Your task to perform on an android device: Show me popular games on the Play Store Image 0: 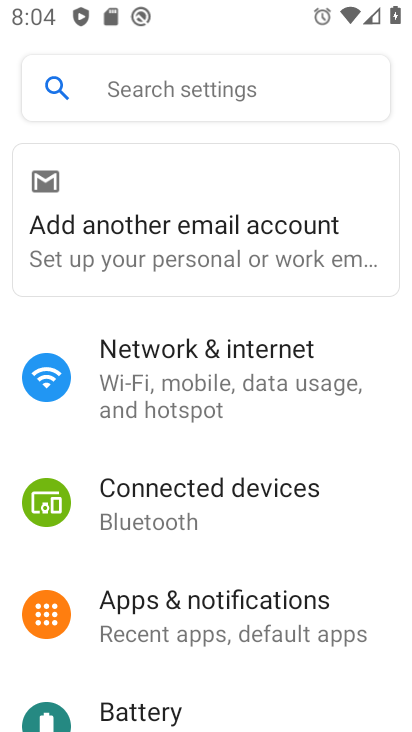
Step 0: press home button
Your task to perform on an android device: Show me popular games on the Play Store Image 1: 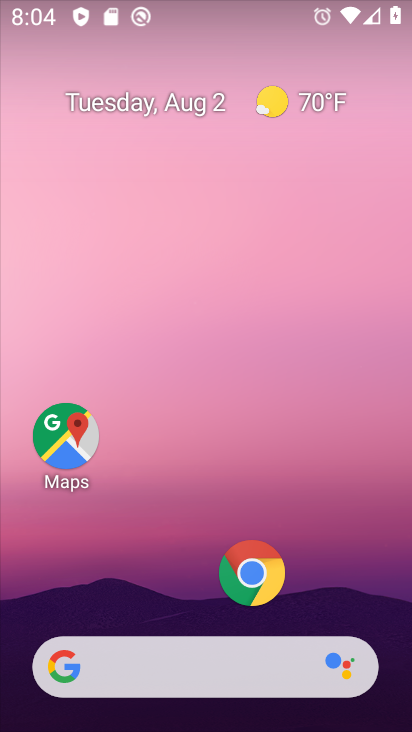
Step 1: drag from (191, 612) to (189, 42)
Your task to perform on an android device: Show me popular games on the Play Store Image 2: 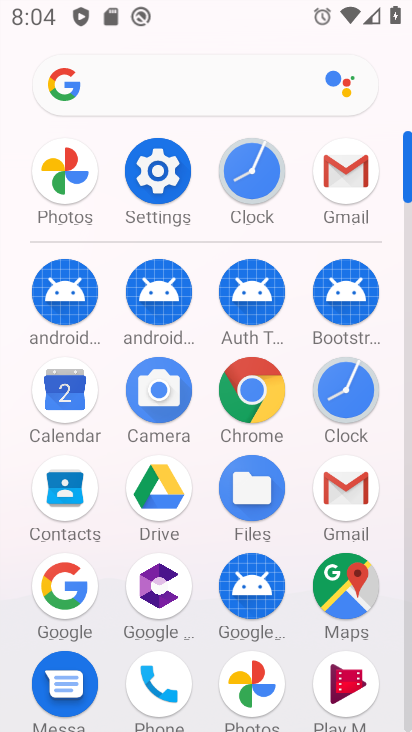
Step 2: drag from (202, 542) to (184, 70)
Your task to perform on an android device: Show me popular games on the Play Store Image 3: 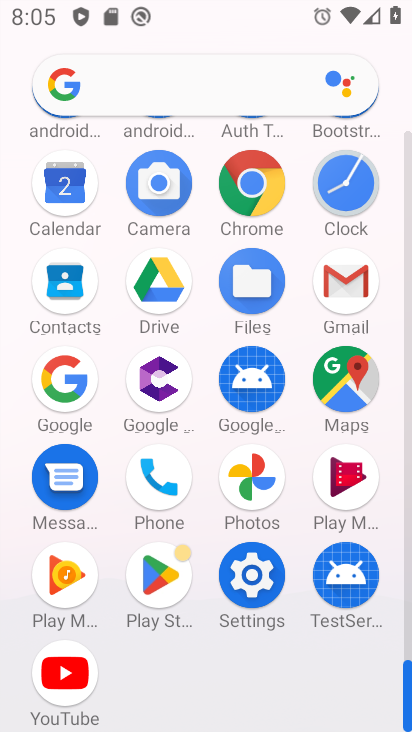
Step 3: click (157, 568)
Your task to perform on an android device: Show me popular games on the Play Store Image 4: 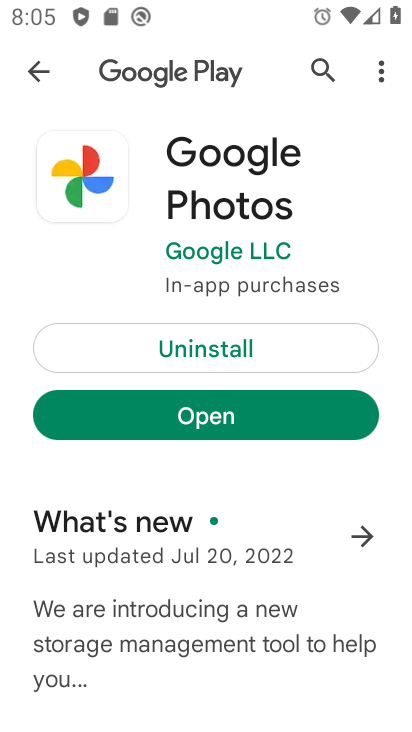
Step 4: click (35, 69)
Your task to perform on an android device: Show me popular games on the Play Store Image 5: 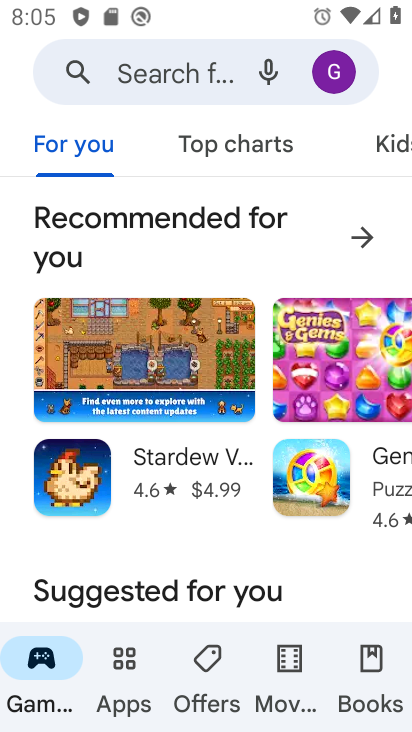
Step 5: task complete